Your task to perform on an android device: change timer sound Image 0: 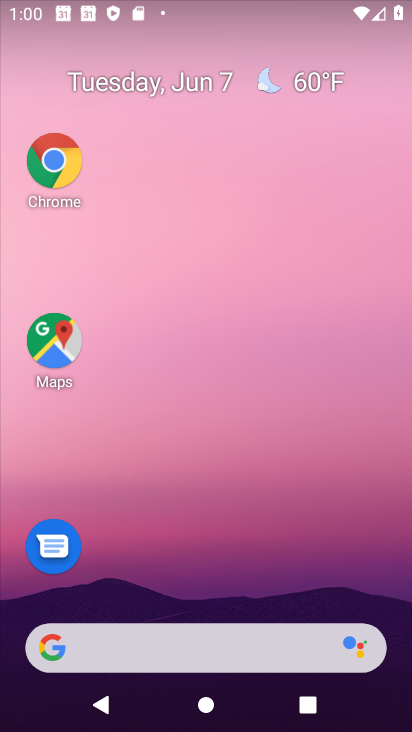
Step 0: drag from (195, 594) to (267, 121)
Your task to perform on an android device: change timer sound Image 1: 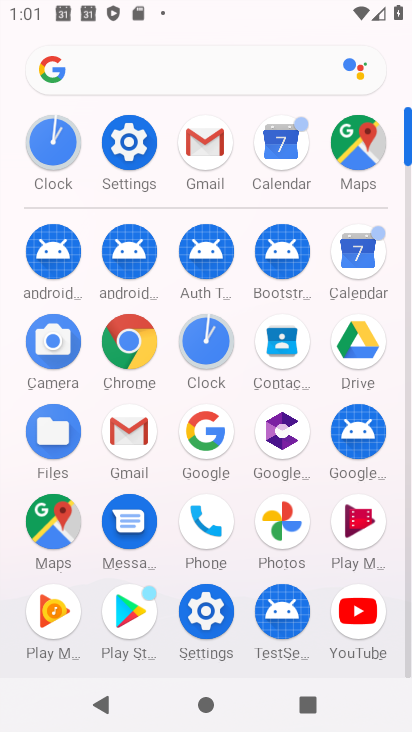
Step 1: click (202, 357)
Your task to perform on an android device: change timer sound Image 2: 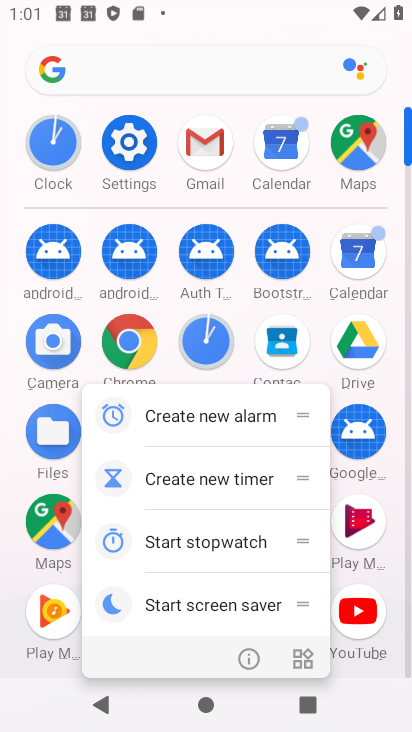
Step 2: click (253, 650)
Your task to perform on an android device: change timer sound Image 3: 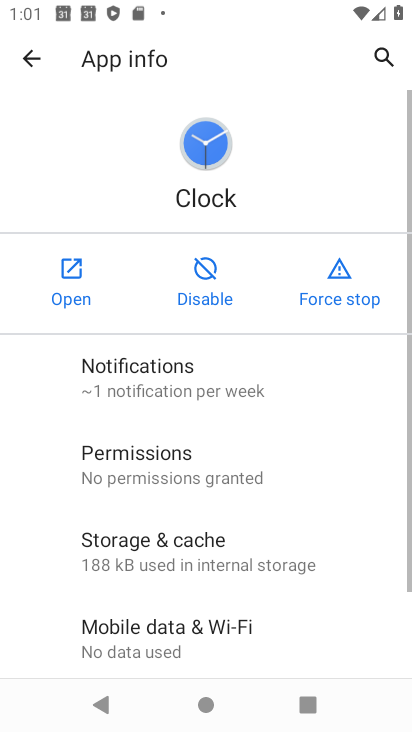
Step 3: click (76, 297)
Your task to perform on an android device: change timer sound Image 4: 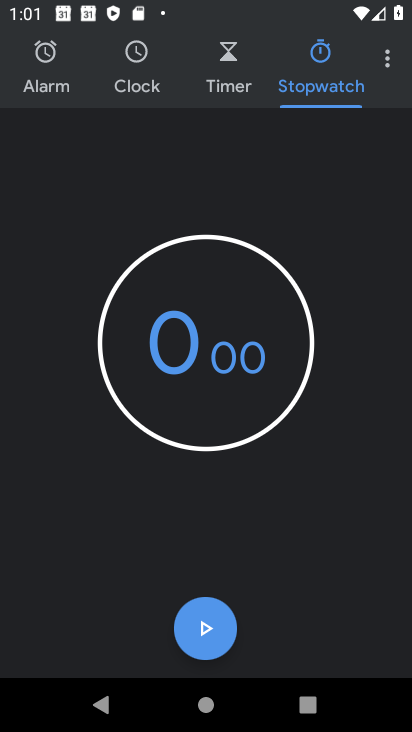
Step 4: click (394, 62)
Your task to perform on an android device: change timer sound Image 5: 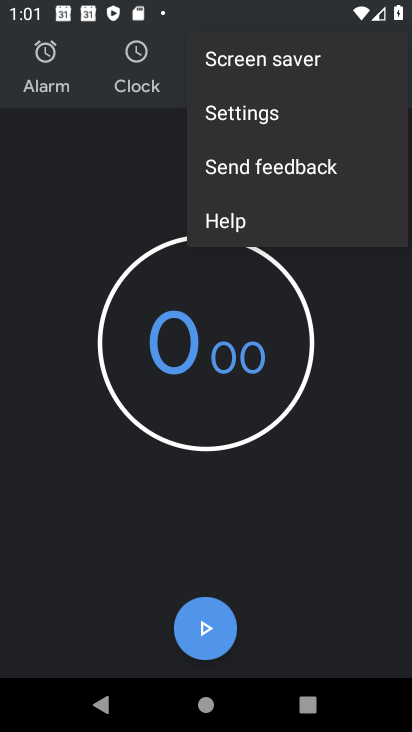
Step 5: click (271, 115)
Your task to perform on an android device: change timer sound Image 6: 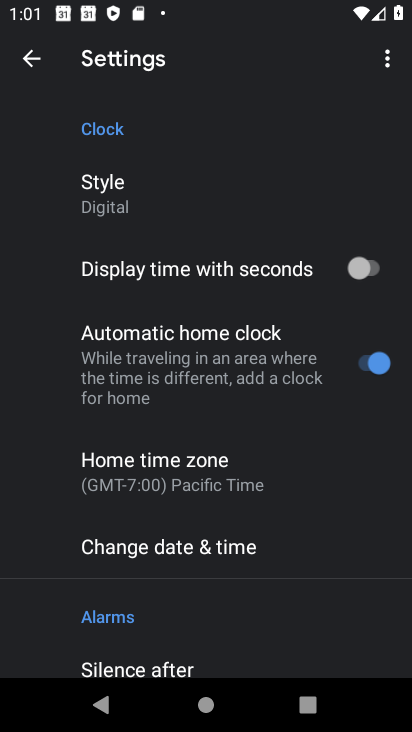
Step 6: click (326, 10)
Your task to perform on an android device: change timer sound Image 7: 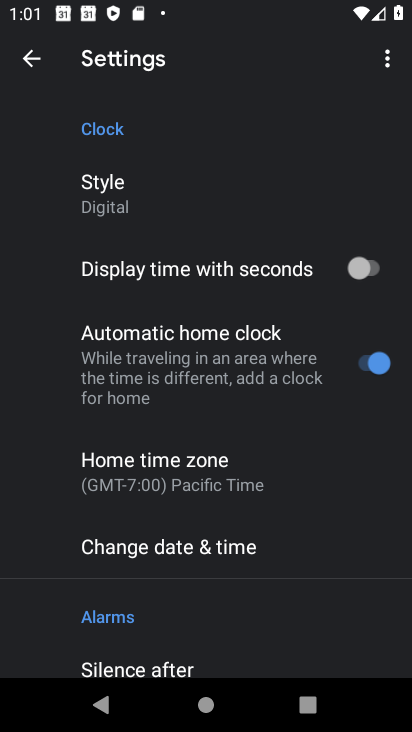
Step 7: drag from (200, 561) to (311, 99)
Your task to perform on an android device: change timer sound Image 8: 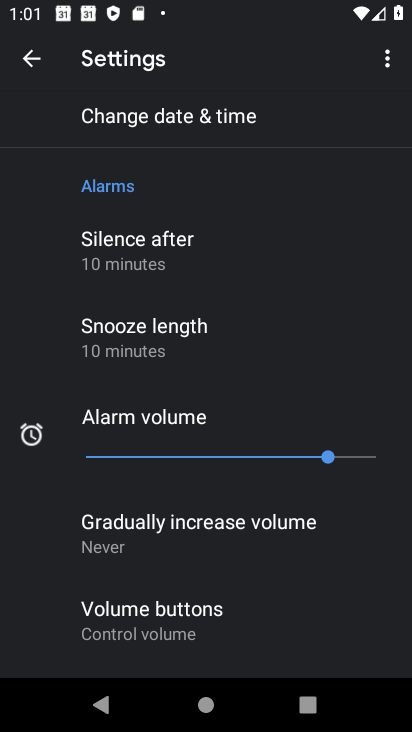
Step 8: drag from (218, 562) to (275, 203)
Your task to perform on an android device: change timer sound Image 9: 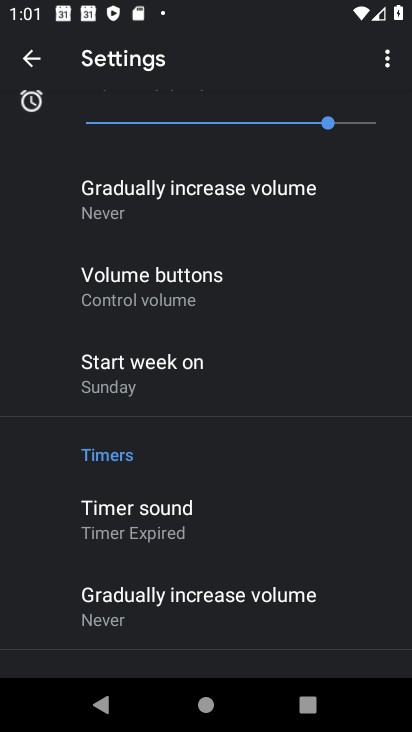
Step 9: click (187, 519)
Your task to perform on an android device: change timer sound Image 10: 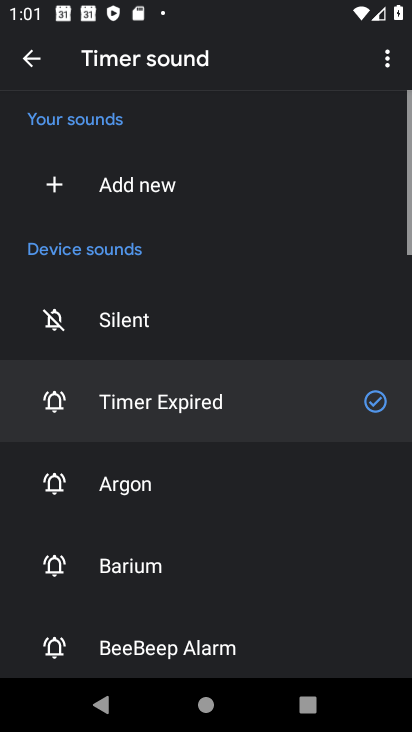
Step 10: drag from (203, 530) to (250, 180)
Your task to perform on an android device: change timer sound Image 11: 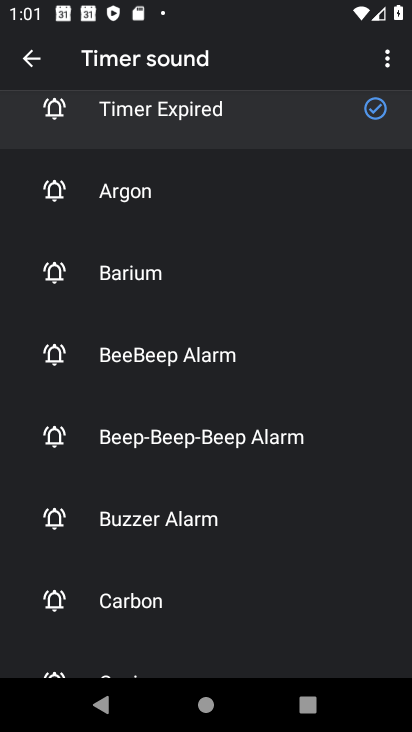
Step 11: click (217, 258)
Your task to perform on an android device: change timer sound Image 12: 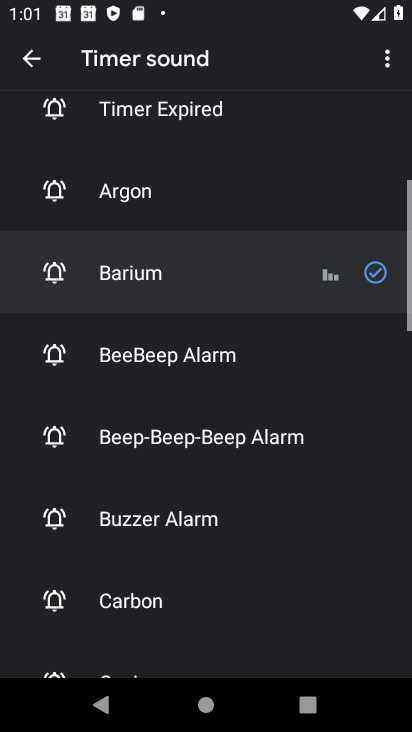
Step 12: task complete